Your task to perform on an android device: Go to Android settings Image 0: 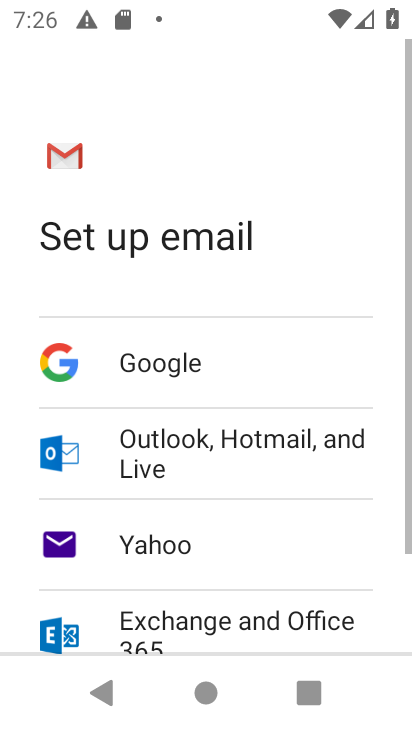
Step 0: press home button
Your task to perform on an android device: Go to Android settings Image 1: 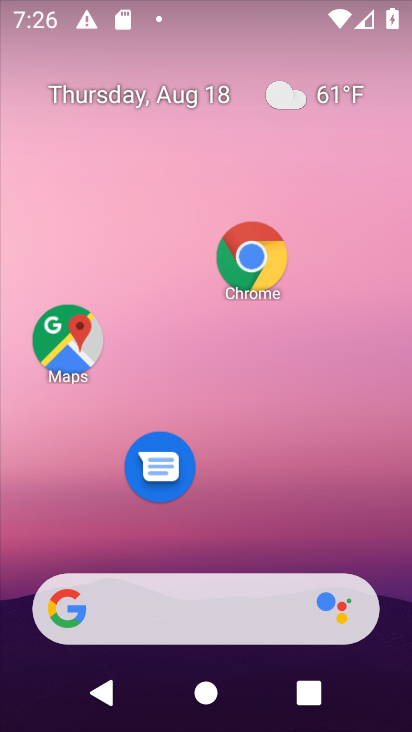
Step 1: drag from (288, 492) to (337, 32)
Your task to perform on an android device: Go to Android settings Image 2: 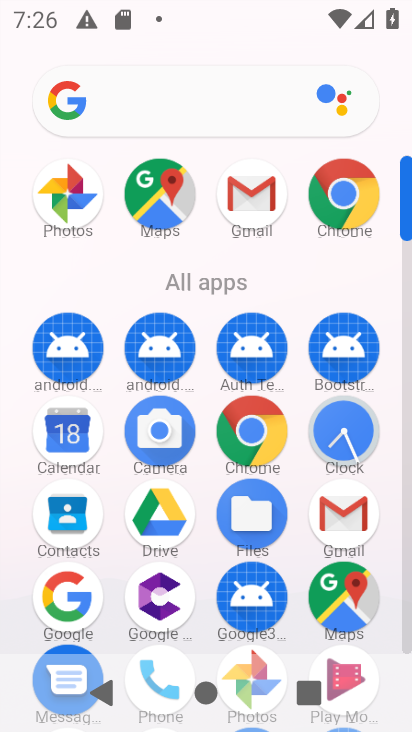
Step 2: drag from (204, 548) to (252, 224)
Your task to perform on an android device: Go to Android settings Image 3: 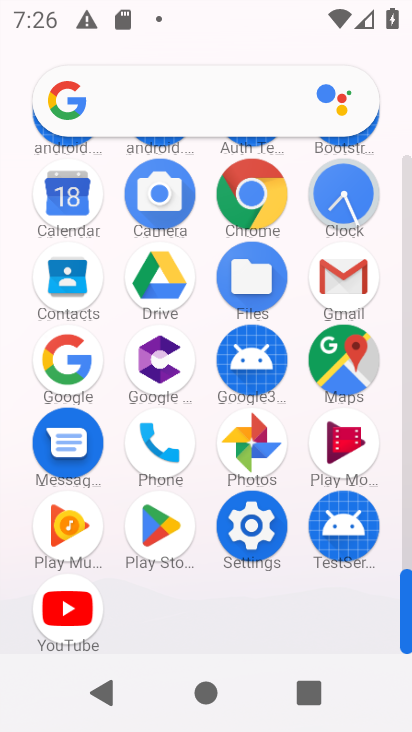
Step 3: click (254, 536)
Your task to perform on an android device: Go to Android settings Image 4: 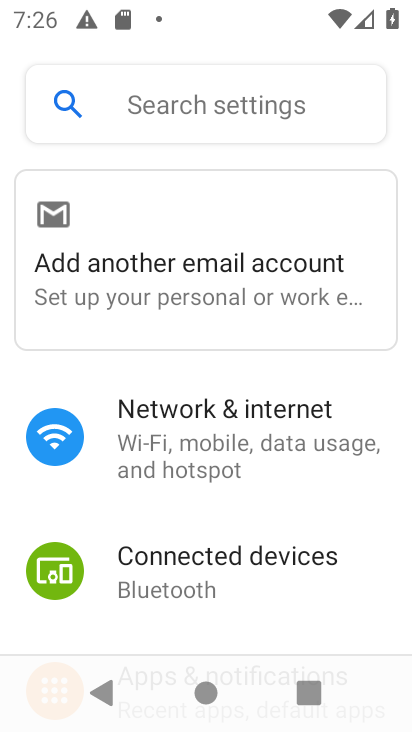
Step 4: task complete